Your task to perform on an android device: Do I have any events tomorrow? Image 0: 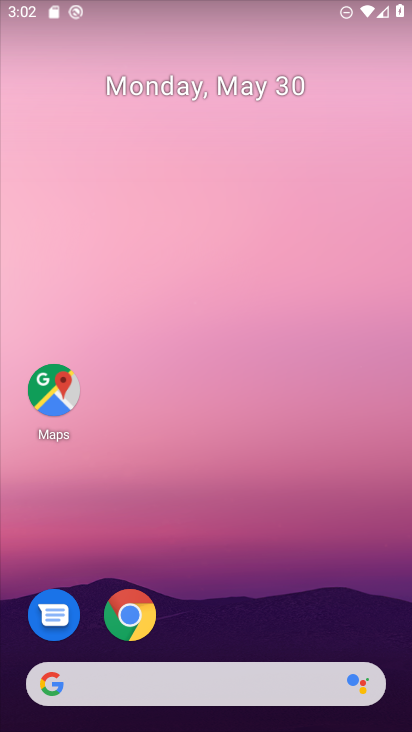
Step 0: press home button
Your task to perform on an android device: Do I have any events tomorrow? Image 1: 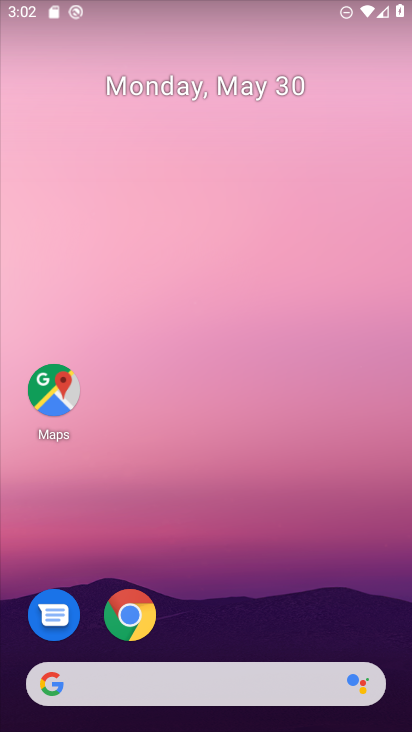
Step 1: drag from (258, 594) to (229, 229)
Your task to perform on an android device: Do I have any events tomorrow? Image 2: 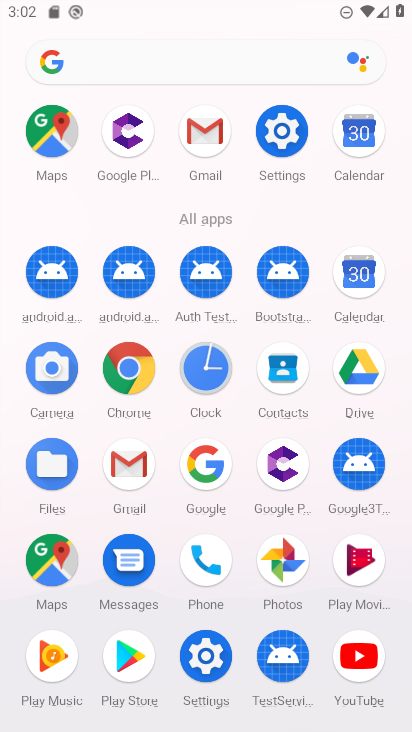
Step 2: click (351, 284)
Your task to perform on an android device: Do I have any events tomorrow? Image 3: 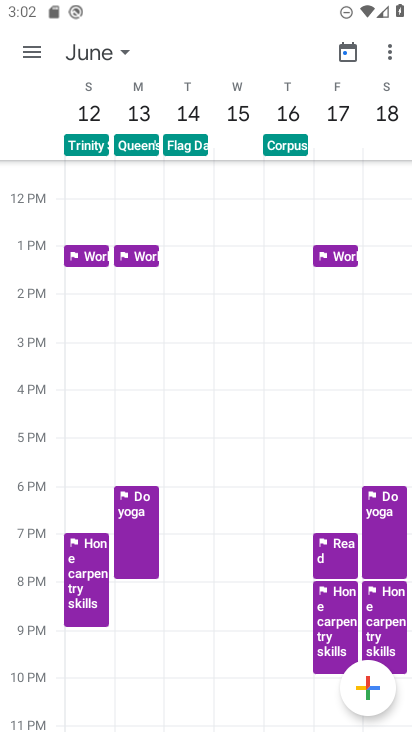
Step 3: click (85, 50)
Your task to perform on an android device: Do I have any events tomorrow? Image 4: 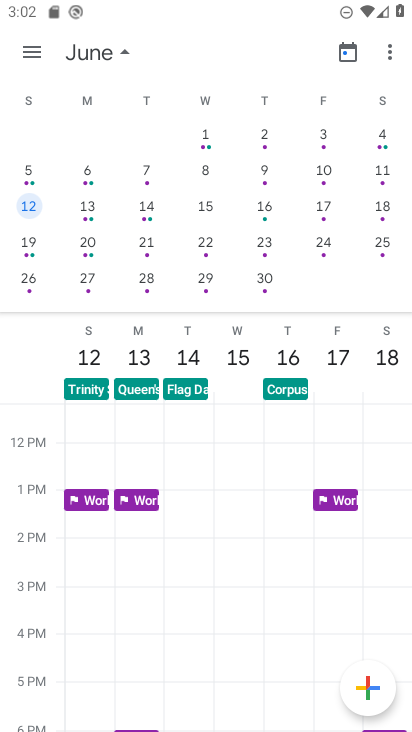
Step 4: drag from (94, 189) to (369, 169)
Your task to perform on an android device: Do I have any events tomorrow? Image 5: 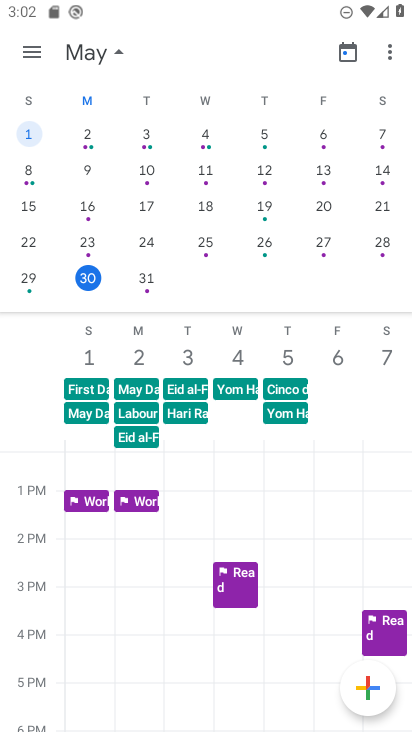
Step 5: click (147, 270)
Your task to perform on an android device: Do I have any events tomorrow? Image 6: 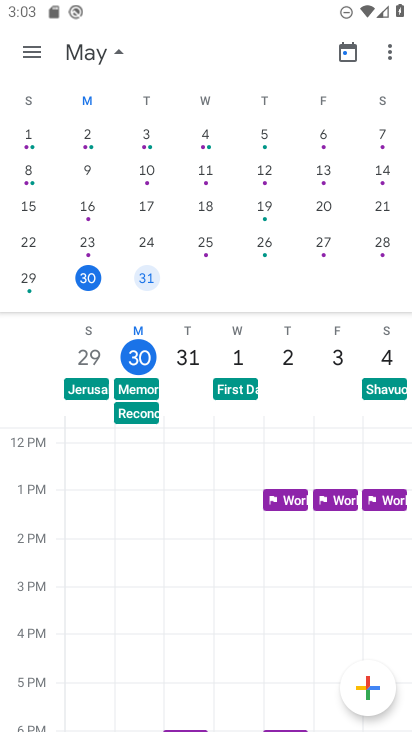
Step 6: task complete